Your task to perform on an android device: Open Google Maps and go to "Timeline" Image 0: 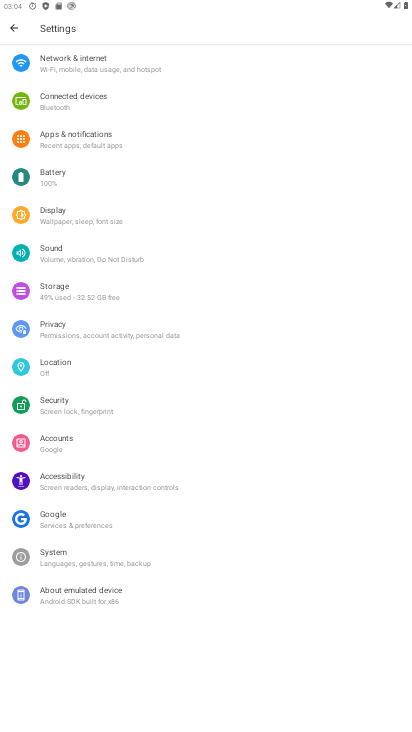
Step 0: press home button
Your task to perform on an android device: Open Google Maps and go to "Timeline" Image 1: 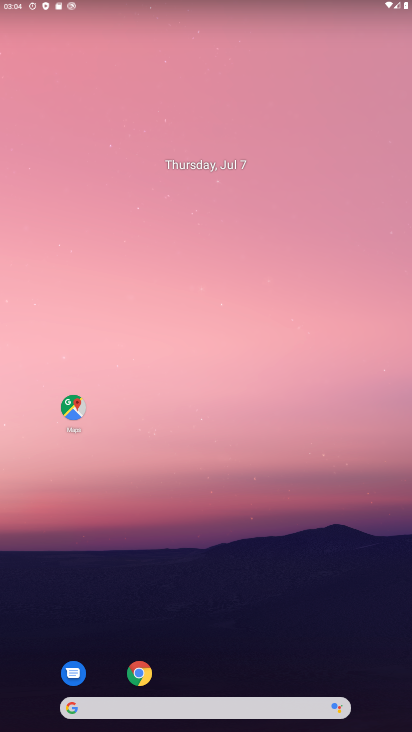
Step 1: drag from (198, 666) to (287, 9)
Your task to perform on an android device: Open Google Maps and go to "Timeline" Image 2: 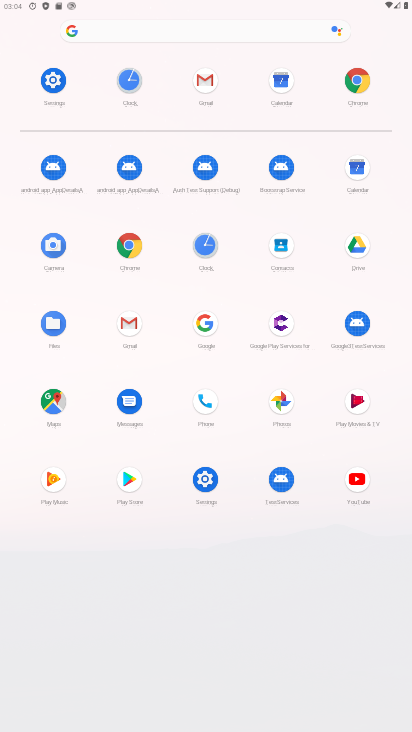
Step 2: click (54, 406)
Your task to perform on an android device: Open Google Maps and go to "Timeline" Image 3: 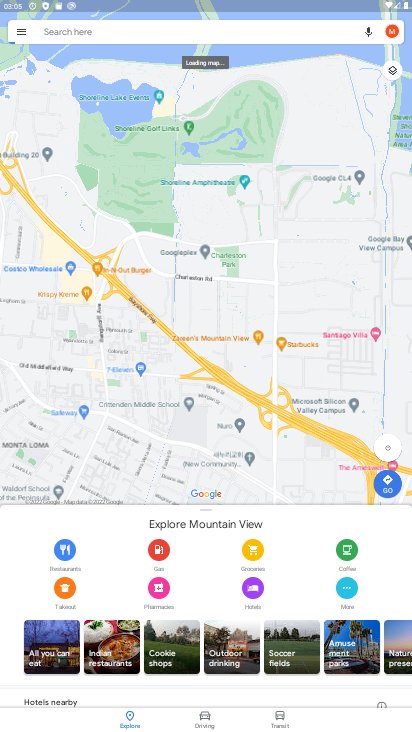
Step 3: click (14, 37)
Your task to perform on an android device: Open Google Maps and go to "Timeline" Image 4: 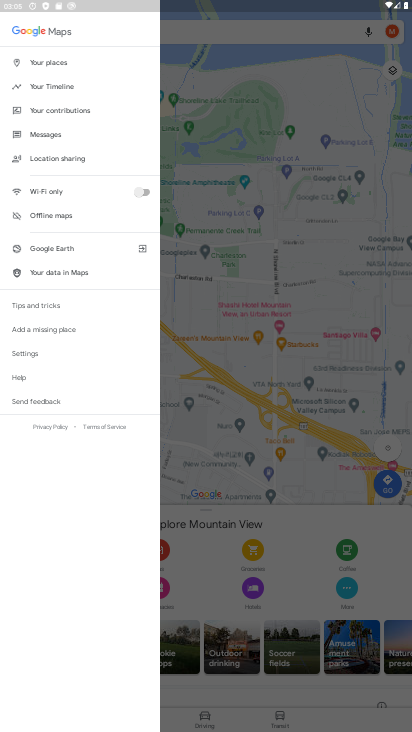
Step 4: click (55, 88)
Your task to perform on an android device: Open Google Maps and go to "Timeline" Image 5: 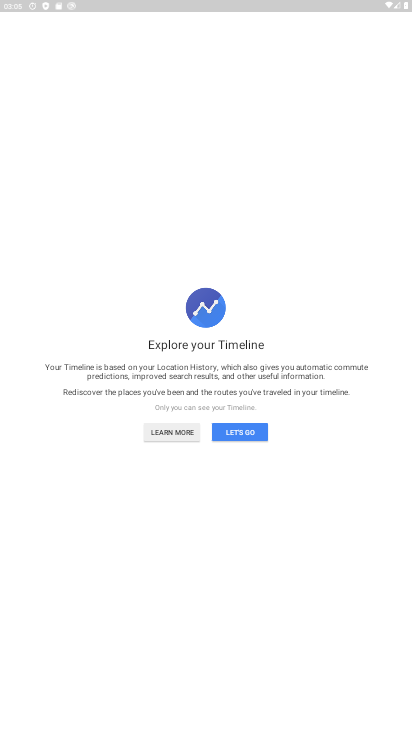
Step 5: task complete